Your task to perform on an android device: set the timer Image 0: 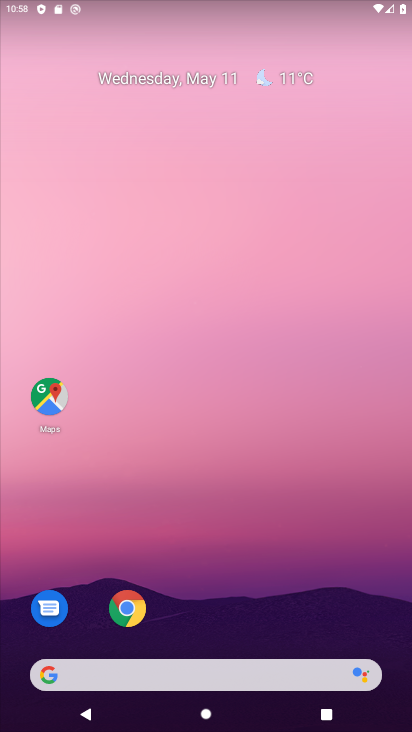
Step 0: drag from (212, 569) to (256, 147)
Your task to perform on an android device: set the timer Image 1: 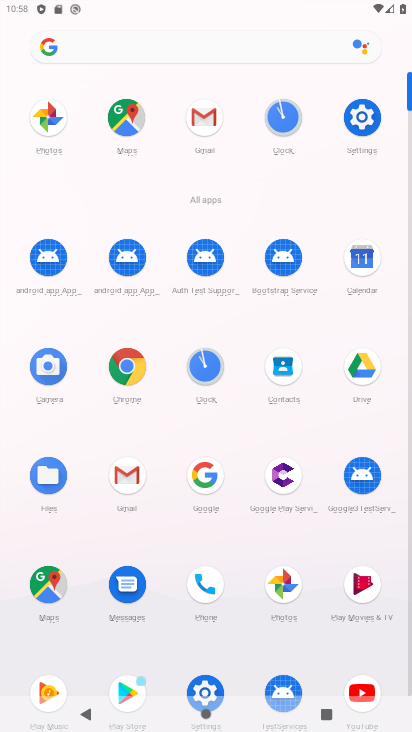
Step 1: click (202, 375)
Your task to perform on an android device: set the timer Image 2: 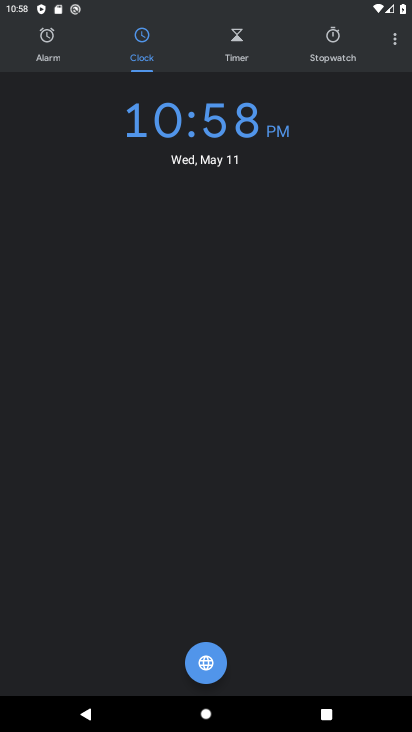
Step 2: click (242, 41)
Your task to perform on an android device: set the timer Image 3: 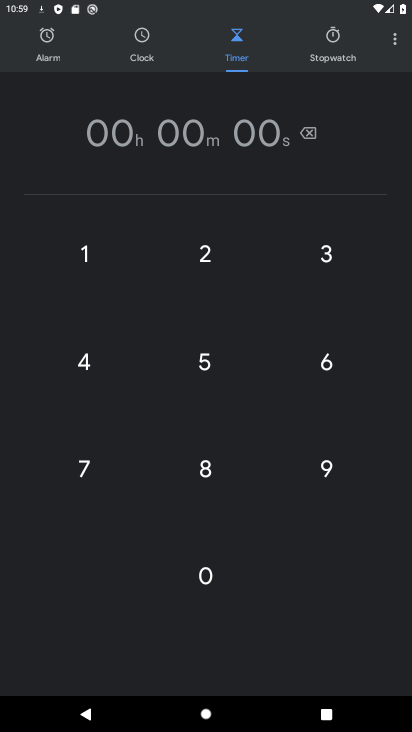
Step 3: click (226, 259)
Your task to perform on an android device: set the timer Image 4: 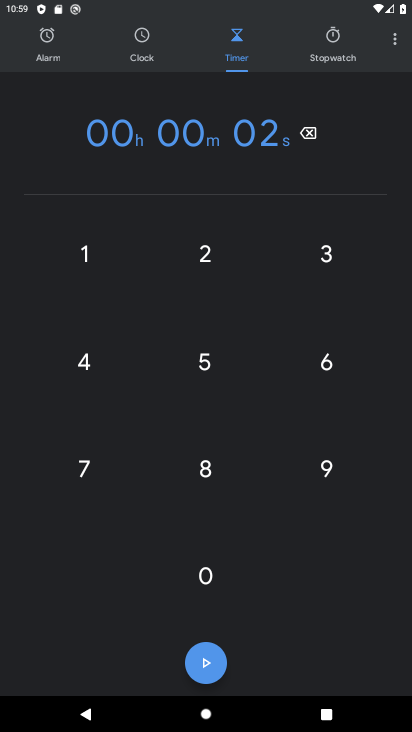
Step 4: click (221, 366)
Your task to perform on an android device: set the timer Image 5: 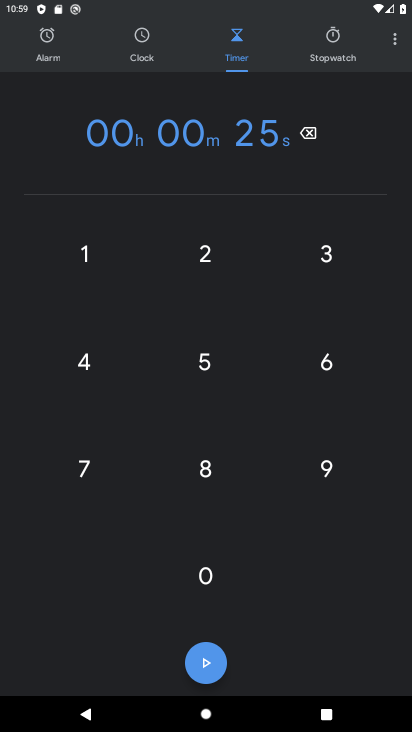
Step 5: click (220, 659)
Your task to perform on an android device: set the timer Image 6: 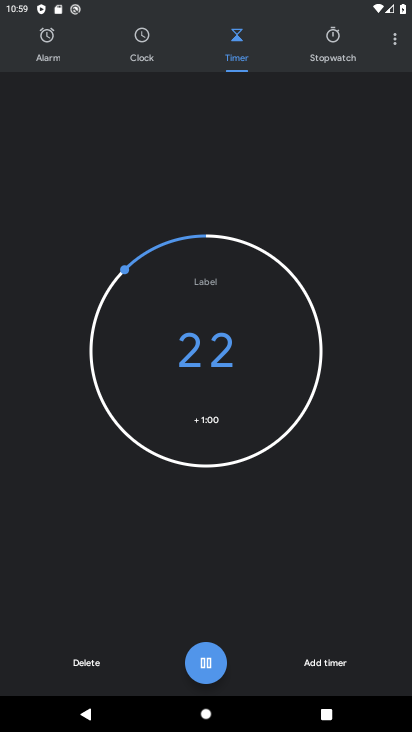
Step 6: task complete